Your task to perform on an android device: Go to CNN.com Image 0: 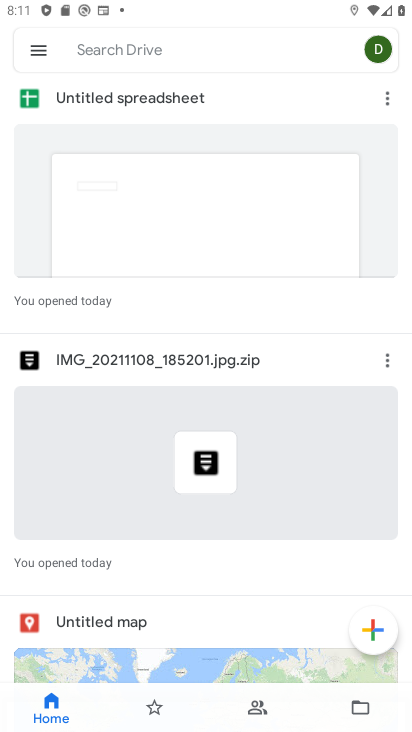
Step 0: press home button
Your task to perform on an android device: Go to CNN.com Image 1: 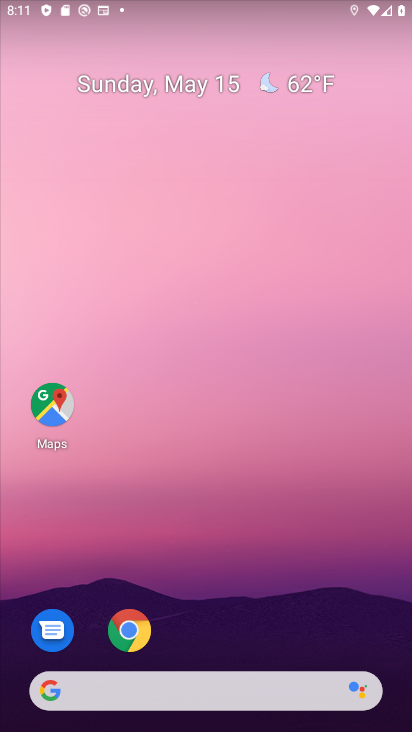
Step 1: click (124, 627)
Your task to perform on an android device: Go to CNN.com Image 2: 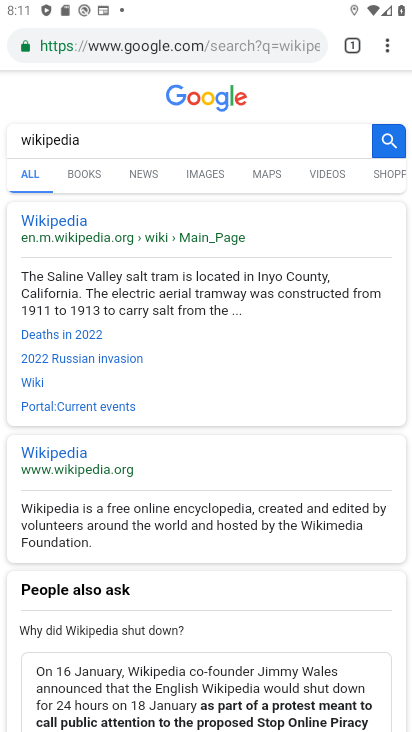
Step 2: click (148, 36)
Your task to perform on an android device: Go to CNN.com Image 3: 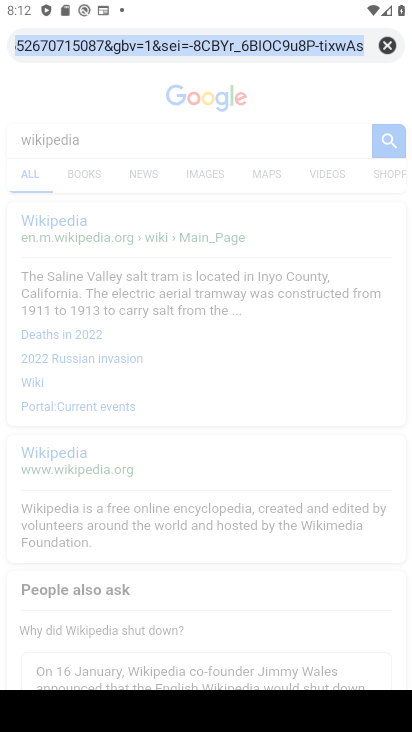
Step 3: type "CNN.com"
Your task to perform on an android device: Go to CNN.com Image 4: 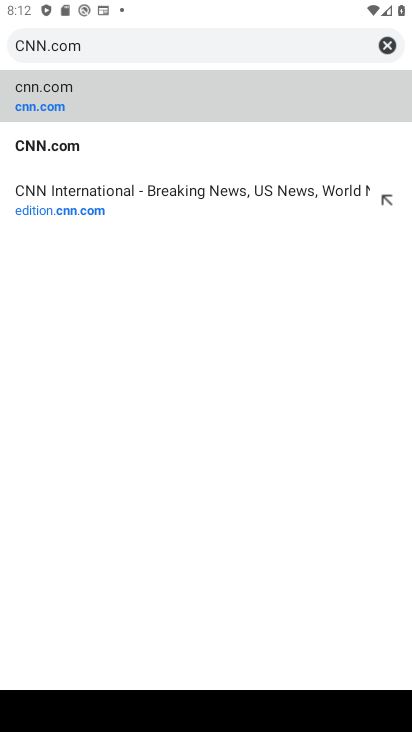
Step 4: click (63, 112)
Your task to perform on an android device: Go to CNN.com Image 5: 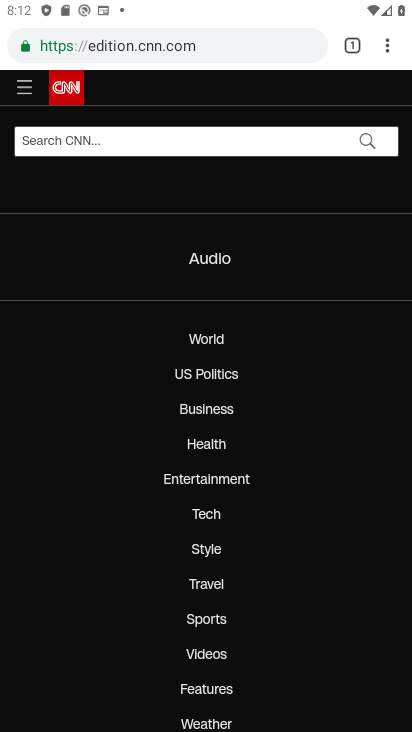
Step 5: task complete